Your task to perform on an android device: set default search engine in the chrome app Image 0: 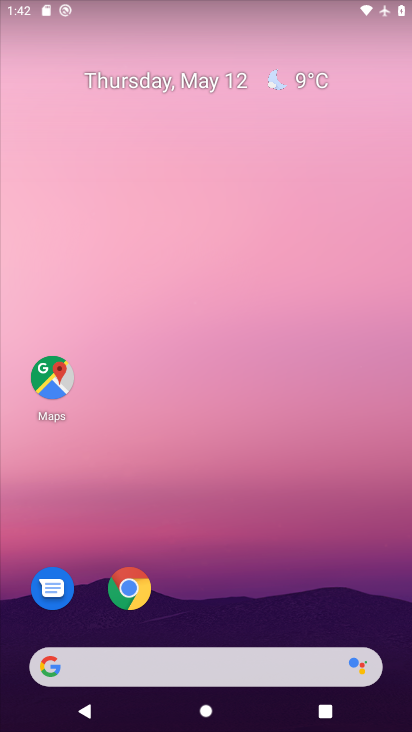
Step 0: drag from (277, 588) to (277, 85)
Your task to perform on an android device: set default search engine in the chrome app Image 1: 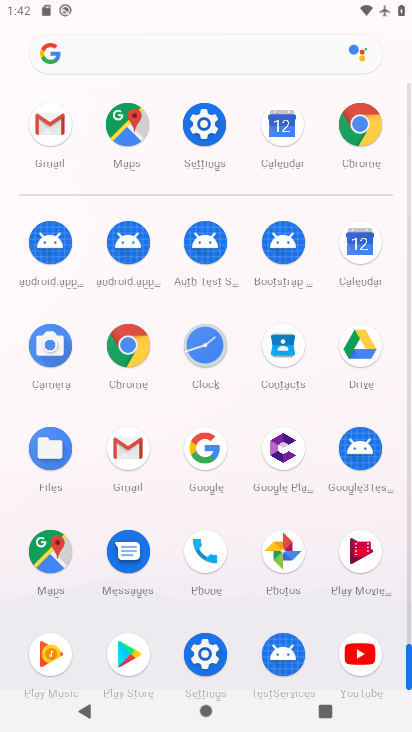
Step 1: click (360, 134)
Your task to perform on an android device: set default search engine in the chrome app Image 2: 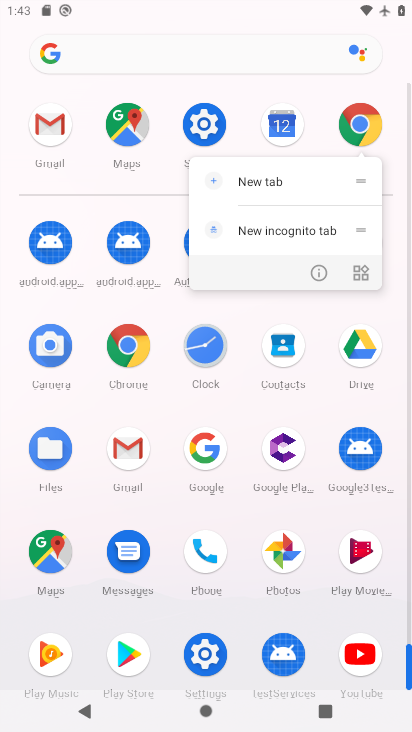
Step 2: click (354, 128)
Your task to perform on an android device: set default search engine in the chrome app Image 3: 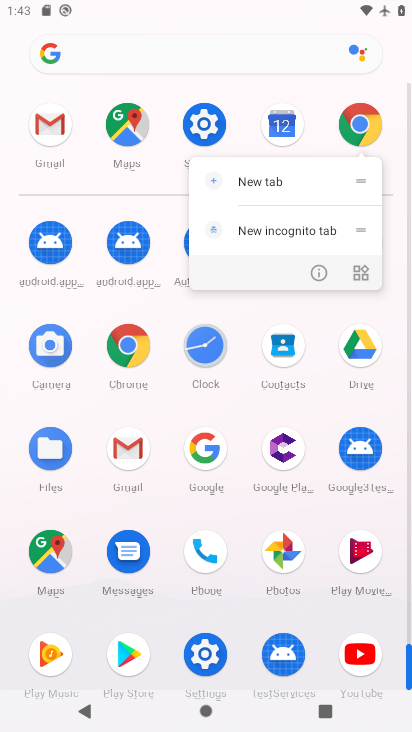
Step 3: click (363, 136)
Your task to perform on an android device: set default search engine in the chrome app Image 4: 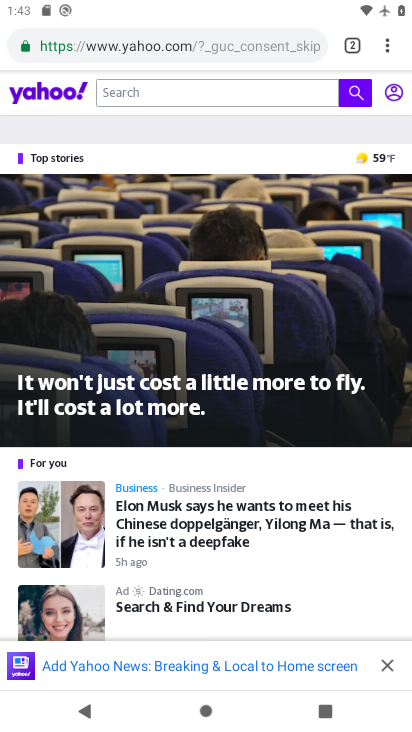
Step 4: drag from (385, 33) to (252, 543)
Your task to perform on an android device: set default search engine in the chrome app Image 5: 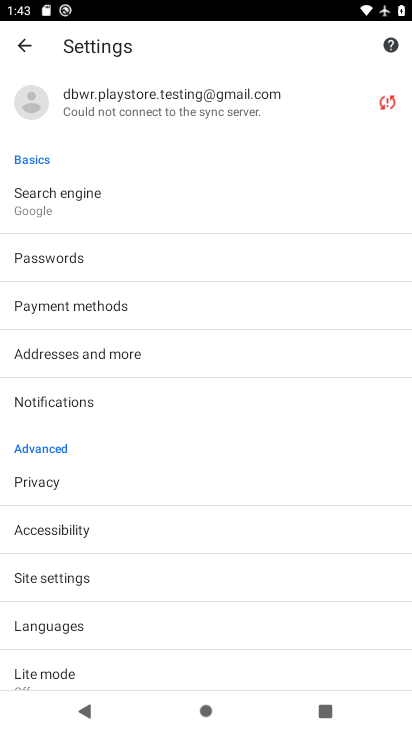
Step 5: click (67, 199)
Your task to perform on an android device: set default search engine in the chrome app Image 6: 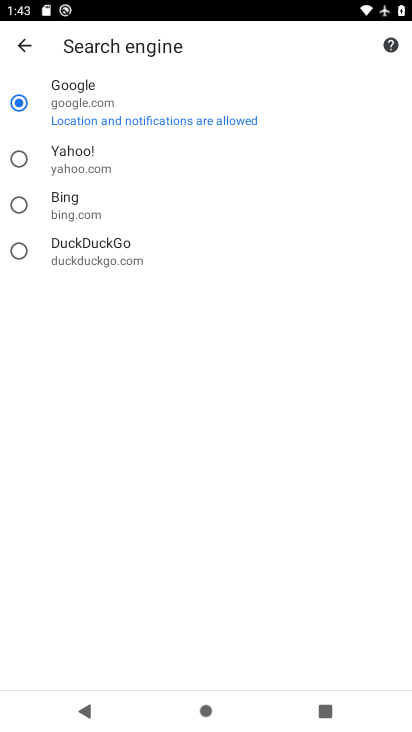
Step 6: task complete